Your task to perform on an android device: Go to calendar. Show me events next week Image 0: 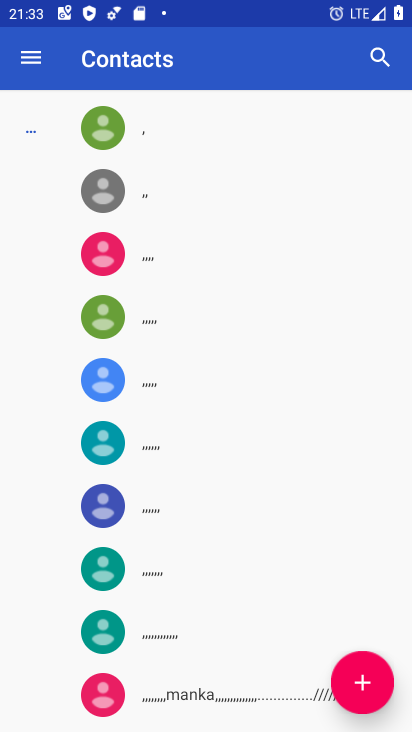
Step 0: press home button
Your task to perform on an android device: Go to calendar. Show me events next week Image 1: 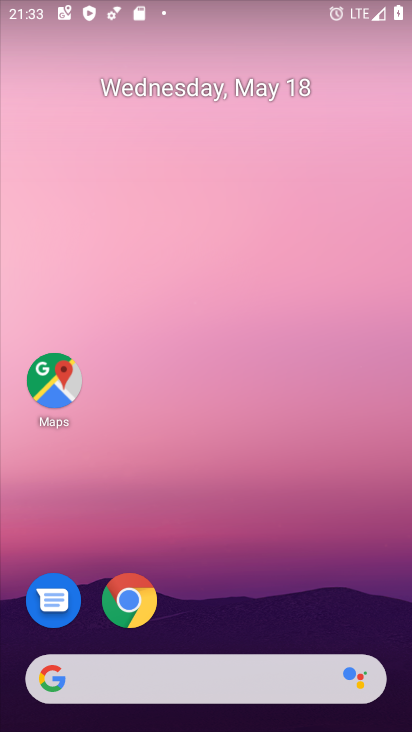
Step 1: drag from (249, 624) to (321, 32)
Your task to perform on an android device: Go to calendar. Show me events next week Image 2: 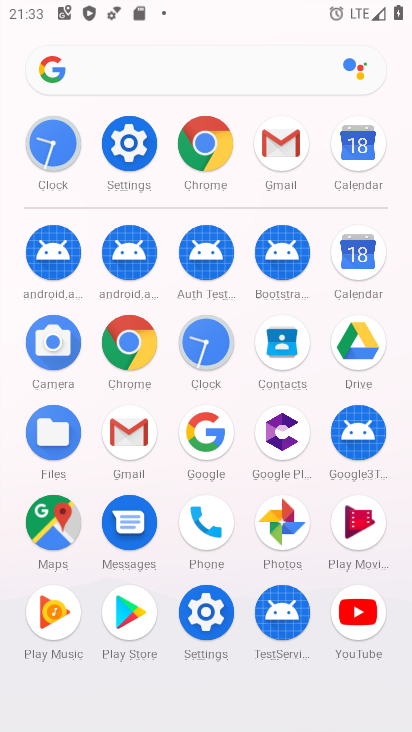
Step 2: click (353, 253)
Your task to perform on an android device: Go to calendar. Show me events next week Image 3: 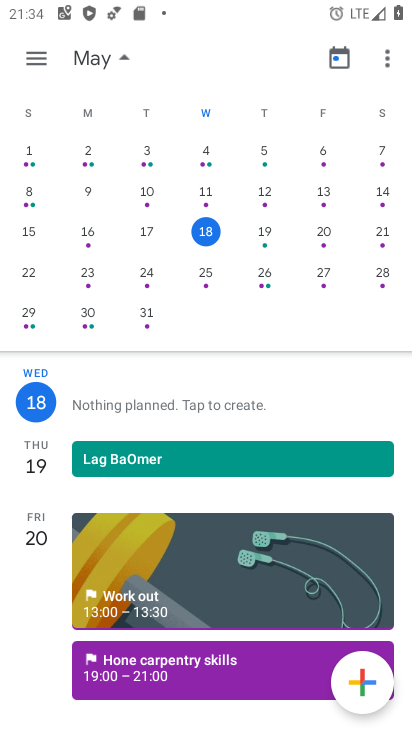
Step 3: click (89, 276)
Your task to perform on an android device: Go to calendar. Show me events next week Image 4: 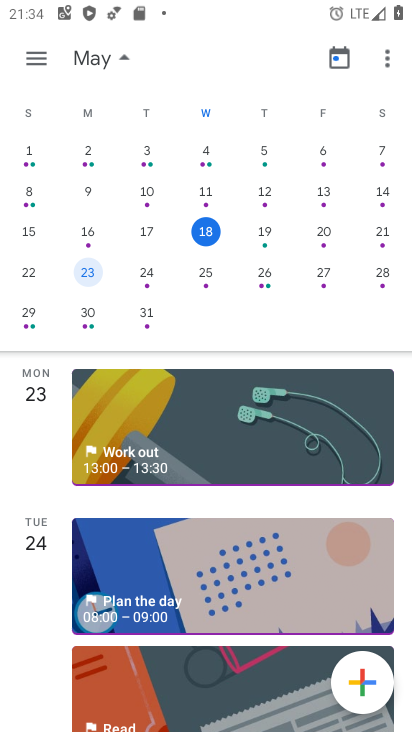
Step 4: drag from (170, 670) to (280, 236)
Your task to perform on an android device: Go to calendar. Show me events next week Image 5: 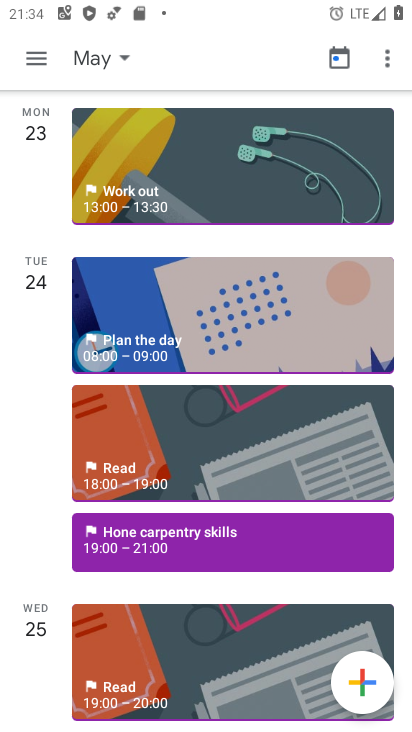
Step 5: drag from (264, 639) to (347, 221)
Your task to perform on an android device: Go to calendar. Show me events next week Image 6: 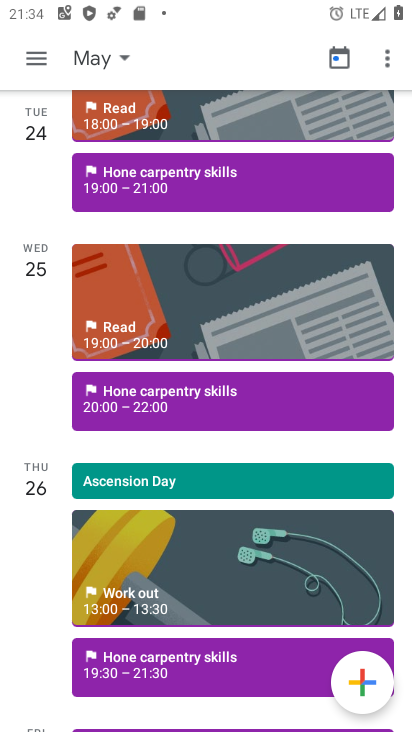
Step 6: click (138, 400)
Your task to perform on an android device: Go to calendar. Show me events next week Image 7: 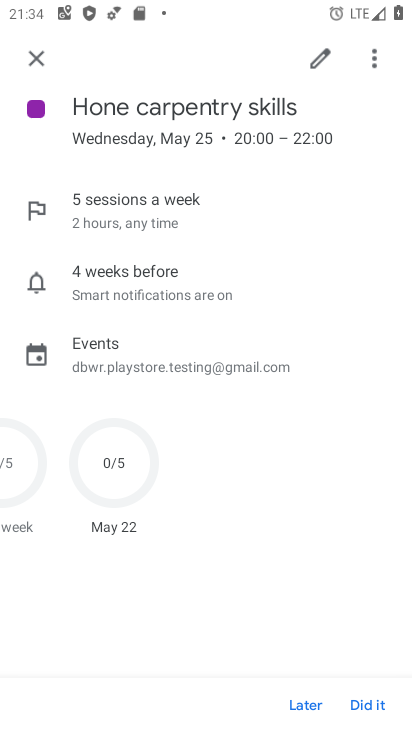
Step 7: task complete